Your task to perform on an android device: check battery use Image 0: 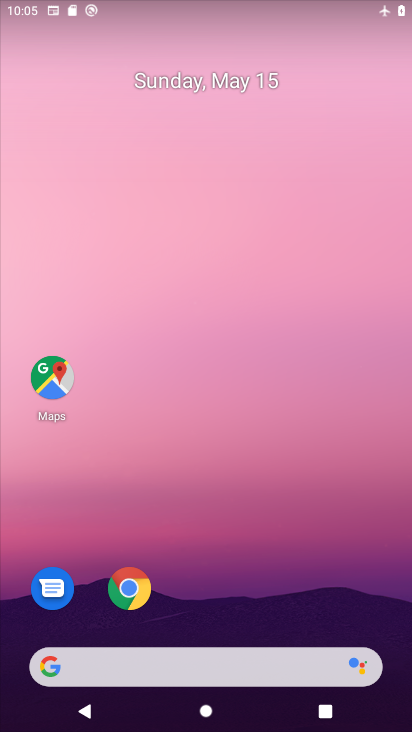
Step 0: drag from (266, 593) to (110, 179)
Your task to perform on an android device: check battery use Image 1: 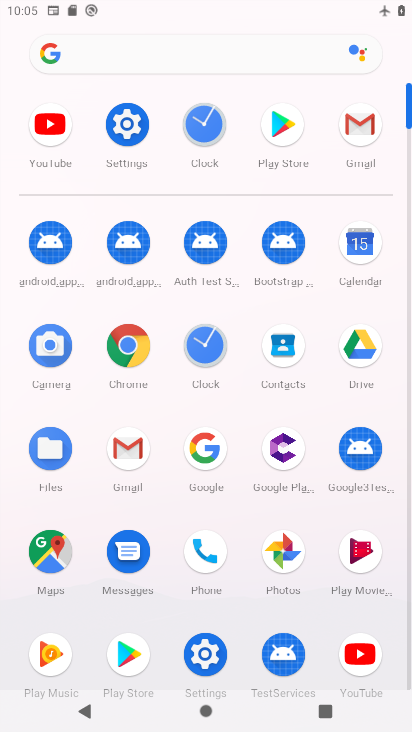
Step 1: click (122, 131)
Your task to perform on an android device: check battery use Image 2: 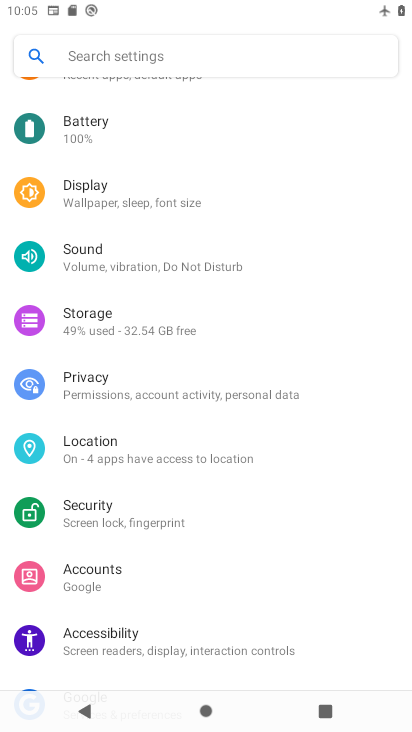
Step 2: click (122, 131)
Your task to perform on an android device: check battery use Image 3: 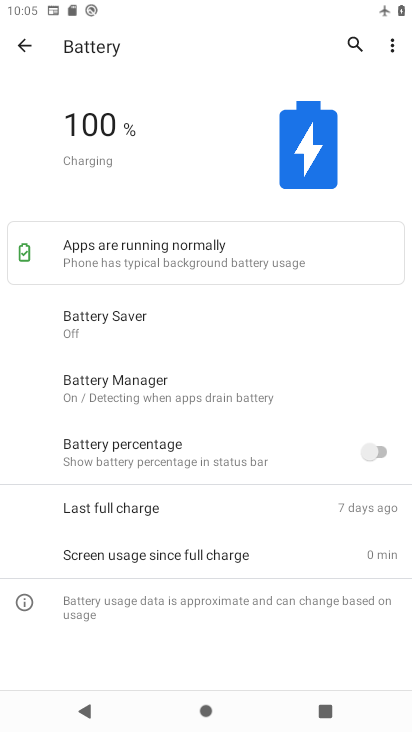
Step 3: click (391, 42)
Your task to perform on an android device: check battery use Image 4: 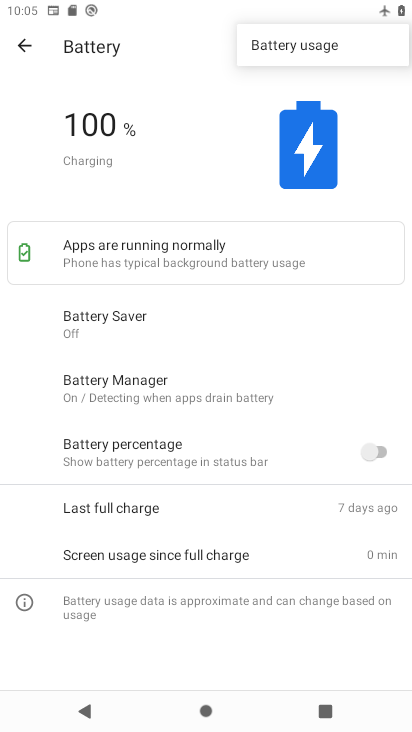
Step 4: click (340, 46)
Your task to perform on an android device: check battery use Image 5: 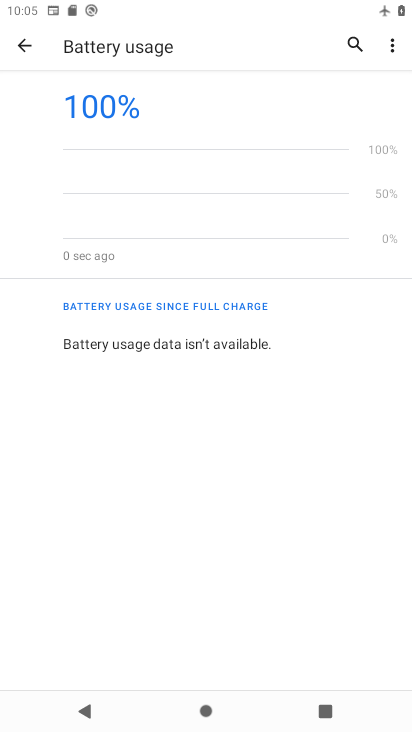
Step 5: task complete